Your task to perform on an android device: Set the phone to "Do not disturb". Image 0: 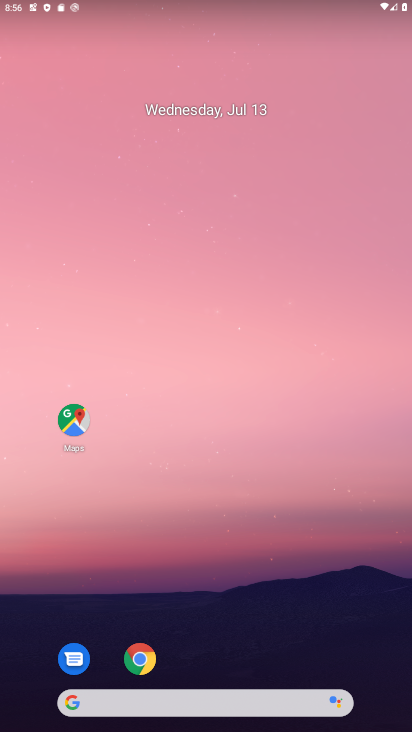
Step 0: drag from (224, 653) to (231, 120)
Your task to perform on an android device: Set the phone to "Do not disturb". Image 1: 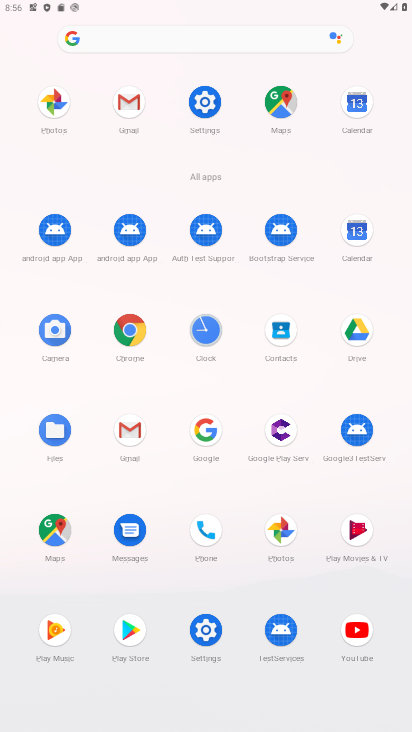
Step 1: click (203, 632)
Your task to perform on an android device: Set the phone to "Do not disturb". Image 2: 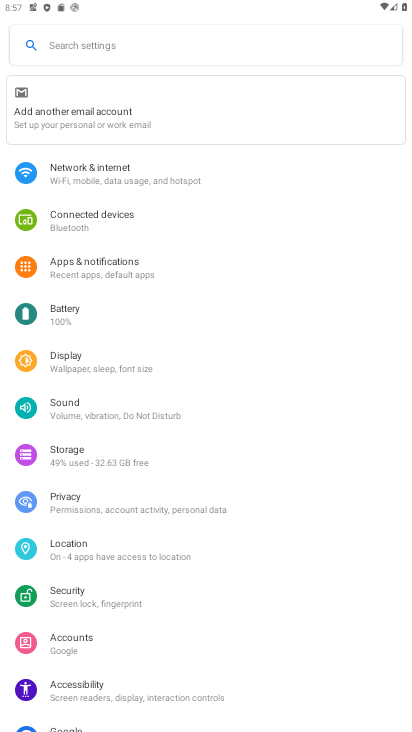
Step 2: click (119, 414)
Your task to perform on an android device: Set the phone to "Do not disturb". Image 3: 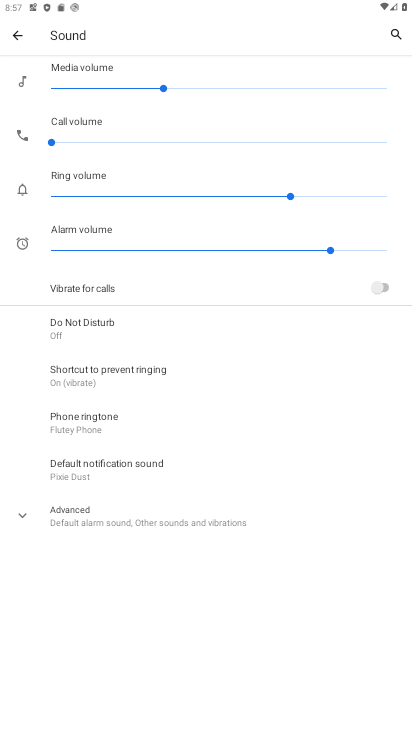
Step 3: click (125, 336)
Your task to perform on an android device: Set the phone to "Do not disturb". Image 4: 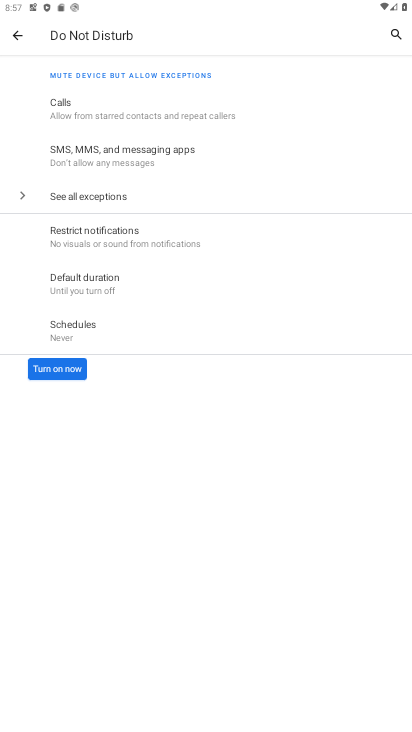
Step 4: click (28, 372)
Your task to perform on an android device: Set the phone to "Do not disturb". Image 5: 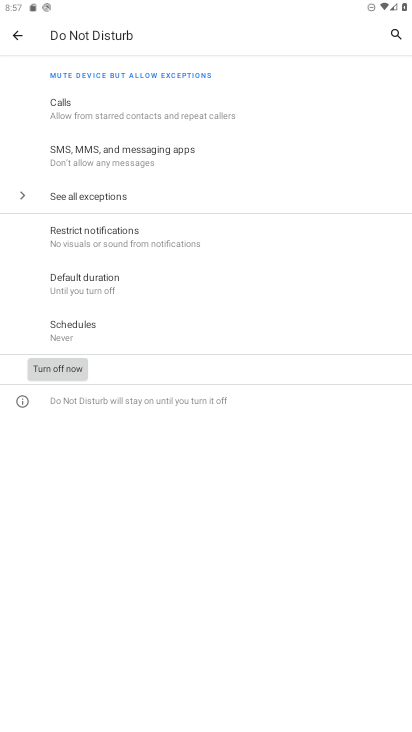
Step 5: task complete